Your task to perform on an android device: What's the weather today? Image 0: 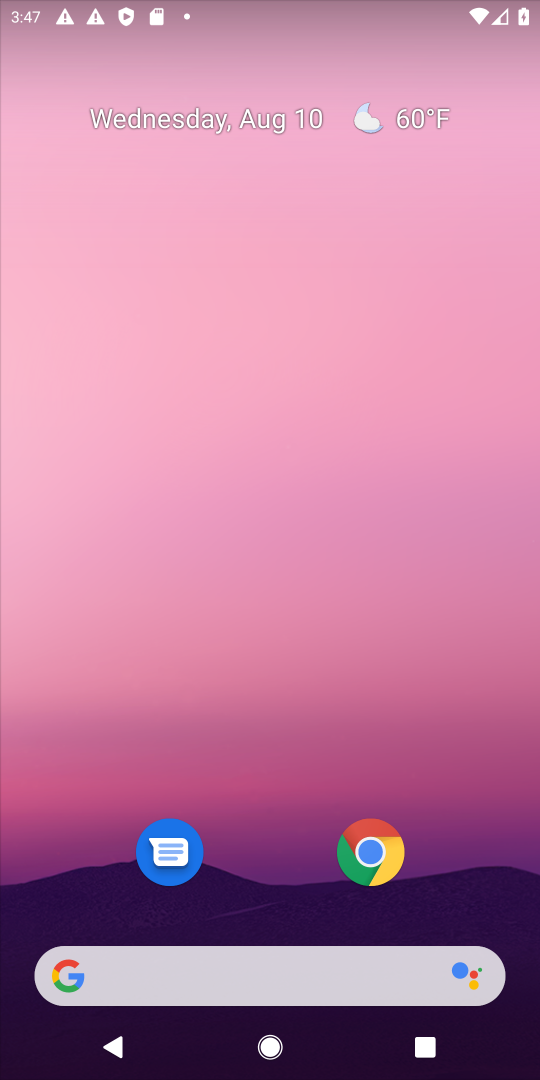
Step 0: click (430, 123)
Your task to perform on an android device: What's the weather today? Image 1: 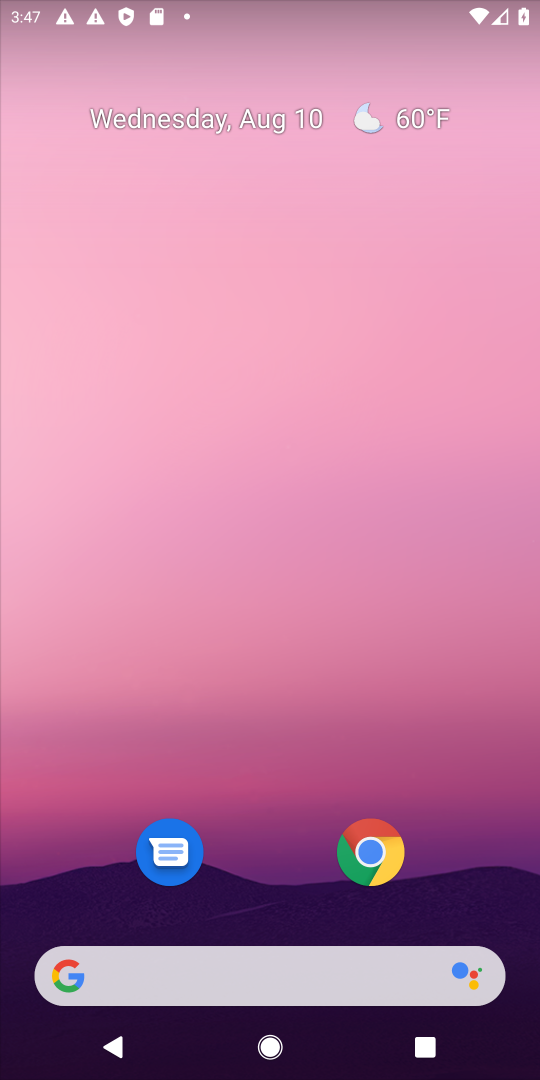
Step 1: drag from (363, 223) to (380, 154)
Your task to perform on an android device: What's the weather today? Image 2: 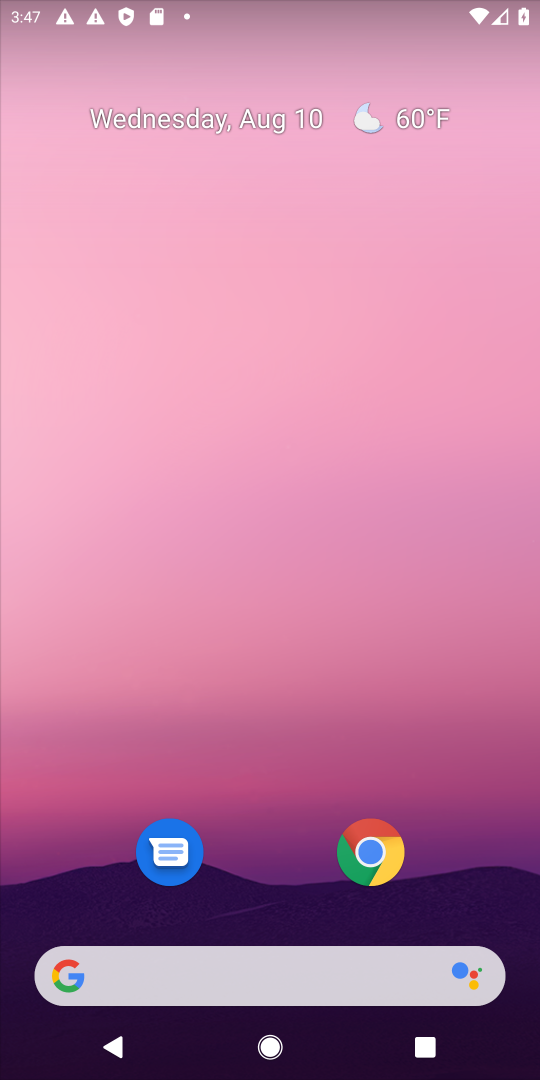
Step 2: drag from (271, 905) to (410, 238)
Your task to perform on an android device: What's the weather today? Image 3: 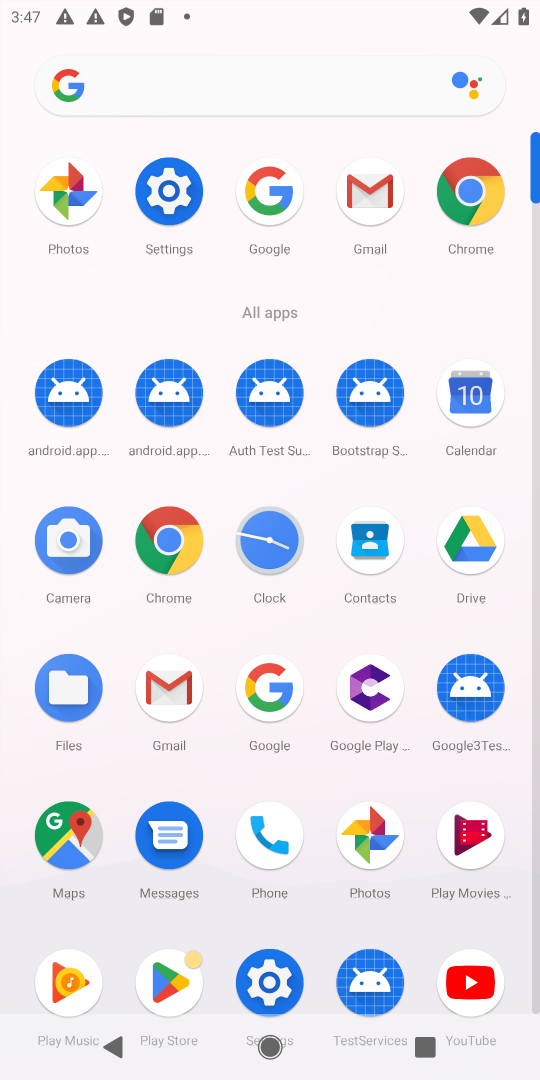
Step 3: click (173, 535)
Your task to perform on an android device: What's the weather today? Image 4: 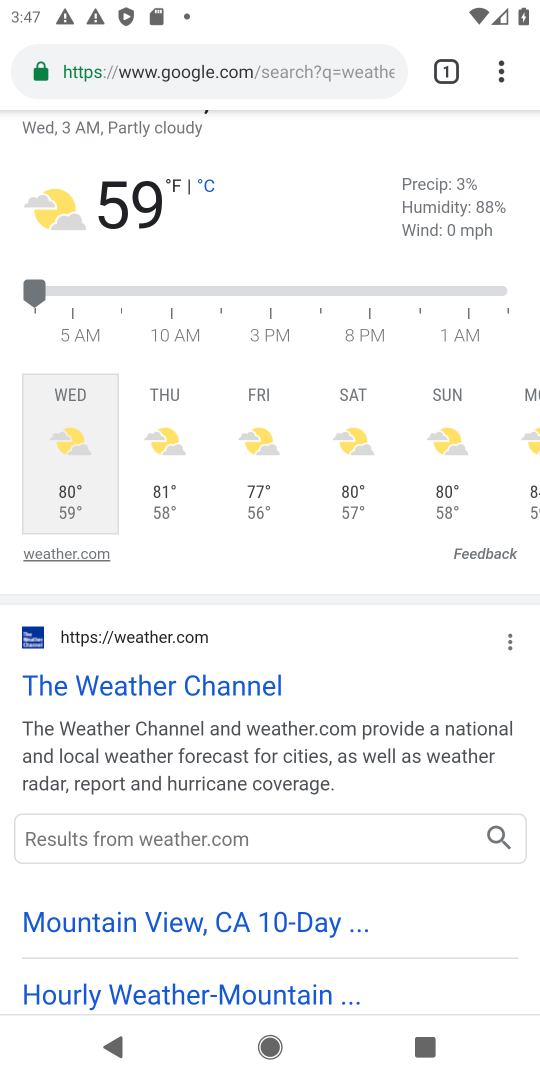
Step 4: task complete